Your task to perform on an android device: Open the stopwatch Image 0: 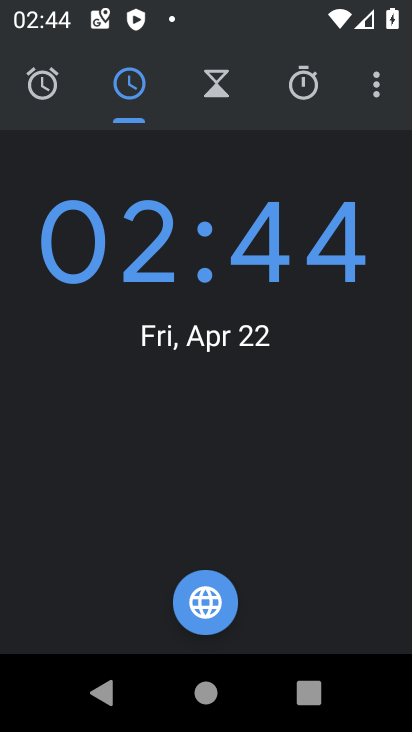
Step 0: click (313, 90)
Your task to perform on an android device: Open the stopwatch Image 1: 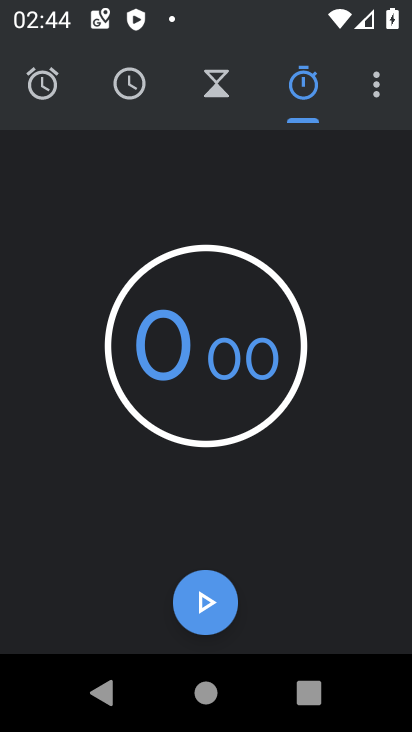
Step 1: task complete